Your task to perform on an android device: Go to wifi settings Image 0: 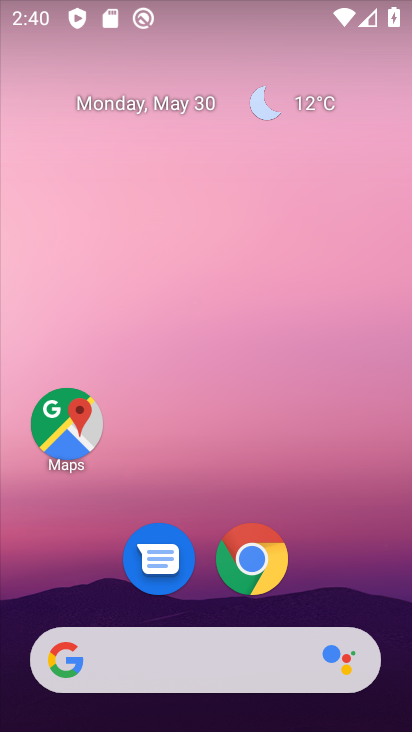
Step 0: drag from (317, 534) to (278, 168)
Your task to perform on an android device: Go to wifi settings Image 1: 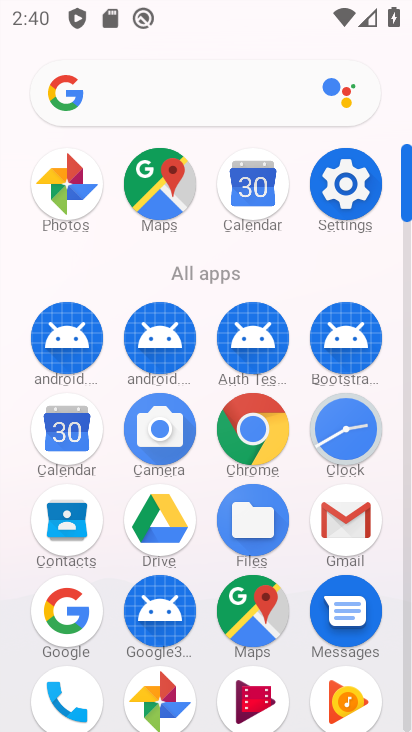
Step 1: click (324, 205)
Your task to perform on an android device: Go to wifi settings Image 2: 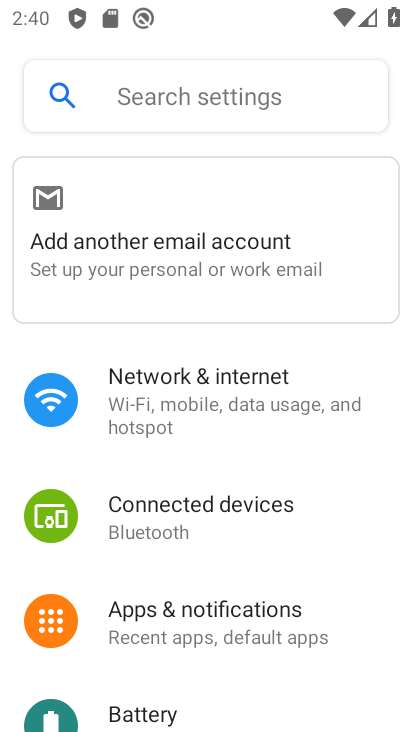
Step 2: click (257, 418)
Your task to perform on an android device: Go to wifi settings Image 3: 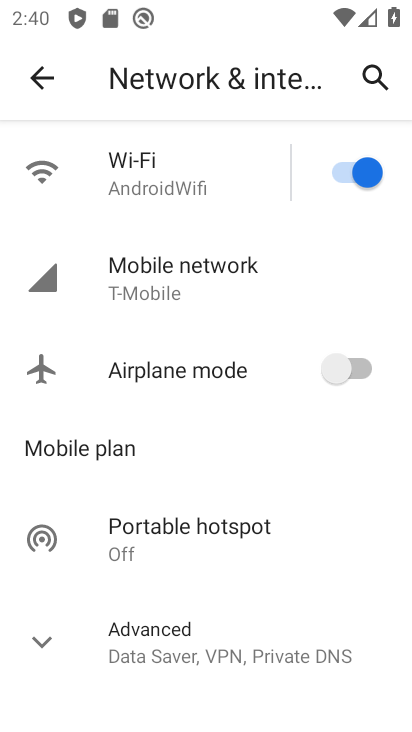
Step 3: click (225, 193)
Your task to perform on an android device: Go to wifi settings Image 4: 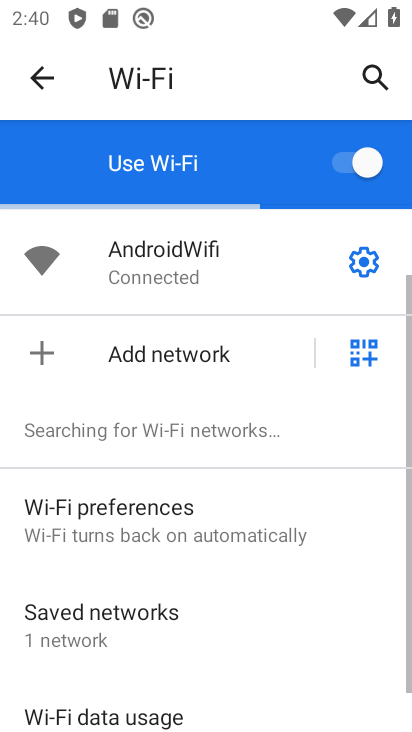
Step 4: click (378, 263)
Your task to perform on an android device: Go to wifi settings Image 5: 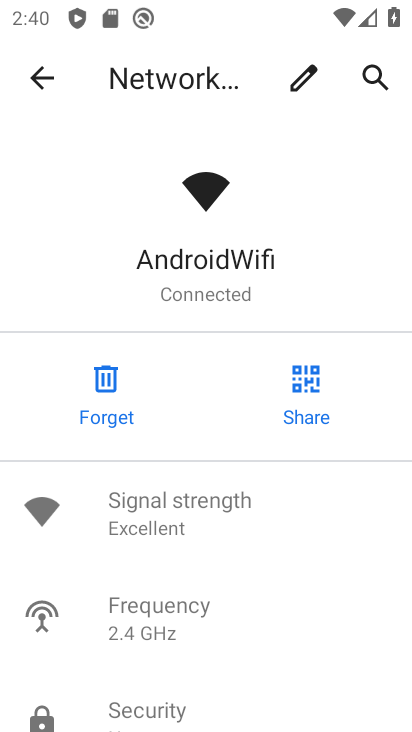
Step 5: task complete